Your task to perform on an android device: turn off smart reply in the gmail app Image 0: 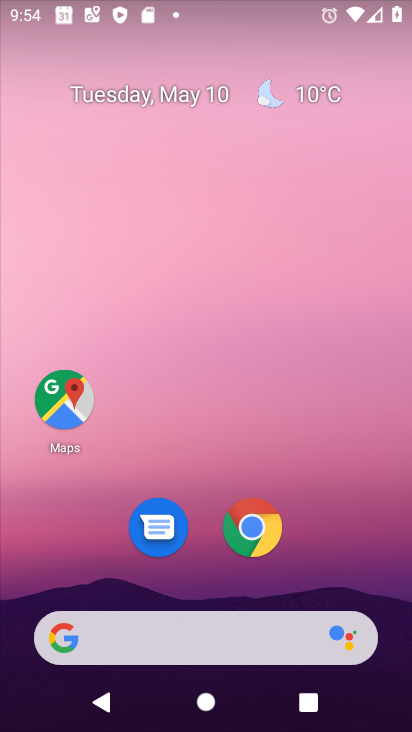
Step 0: drag from (215, 731) to (195, 258)
Your task to perform on an android device: turn off smart reply in the gmail app Image 1: 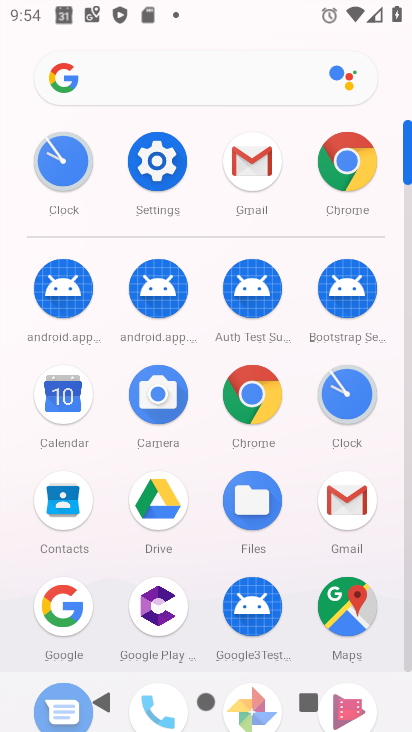
Step 1: click (349, 502)
Your task to perform on an android device: turn off smart reply in the gmail app Image 2: 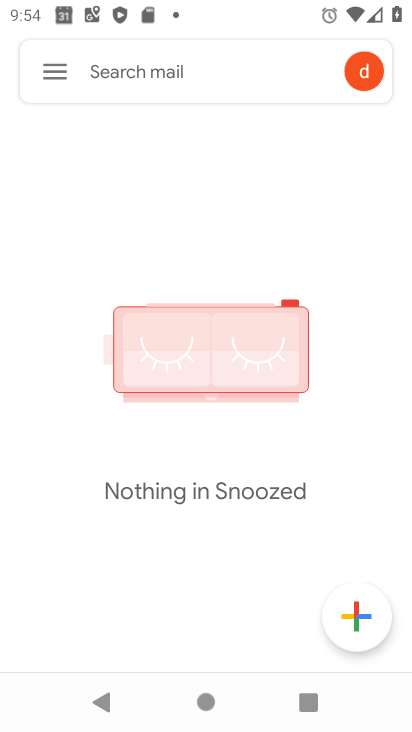
Step 2: click (51, 67)
Your task to perform on an android device: turn off smart reply in the gmail app Image 3: 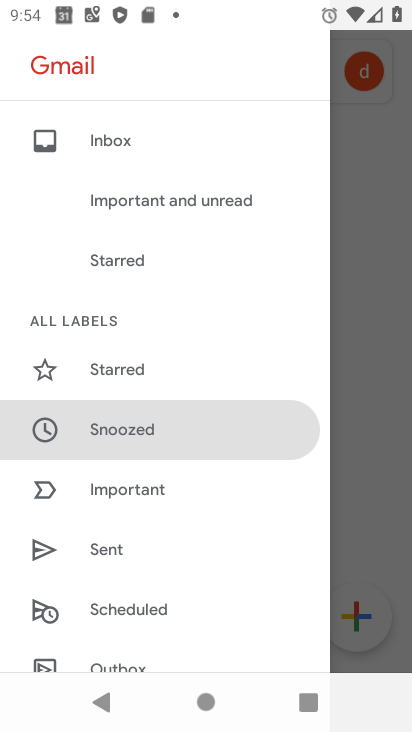
Step 3: drag from (168, 636) to (165, 336)
Your task to perform on an android device: turn off smart reply in the gmail app Image 4: 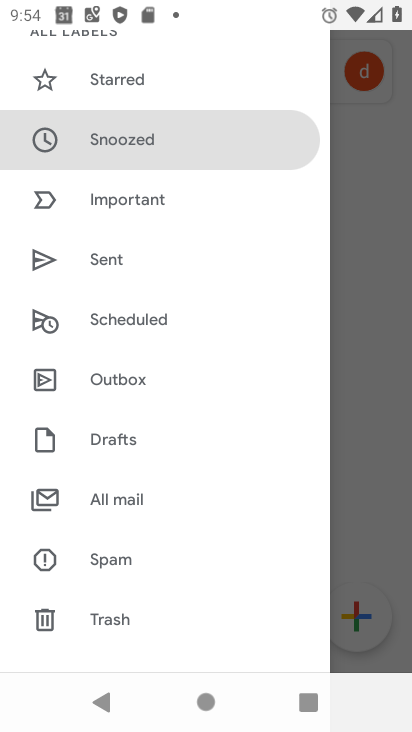
Step 4: drag from (106, 622) to (111, 266)
Your task to perform on an android device: turn off smart reply in the gmail app Image 5: 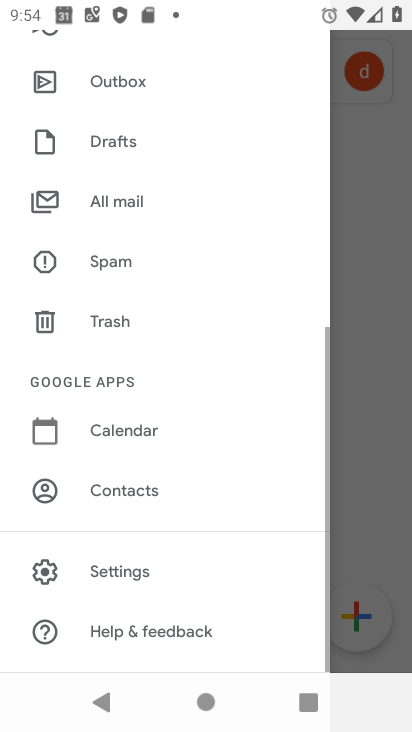
Step 5: click (129, 566)
Your task to perform on an android device: turn off smart reply in the gmail app Image 6: 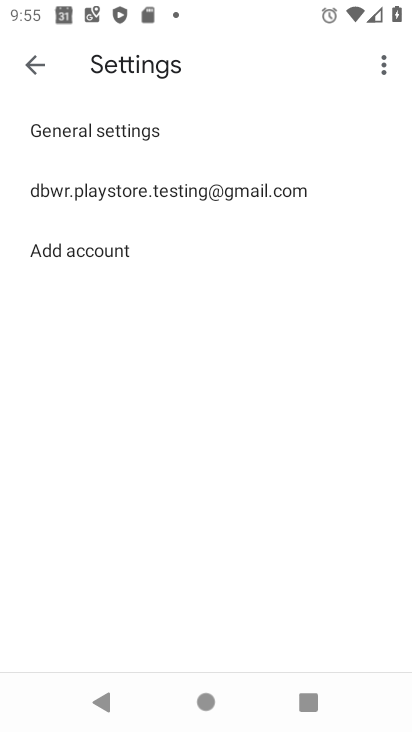
Step 6: click (166, 193)
Your task to perform on an android device: turn off smart reply in the gmail app Image 7: 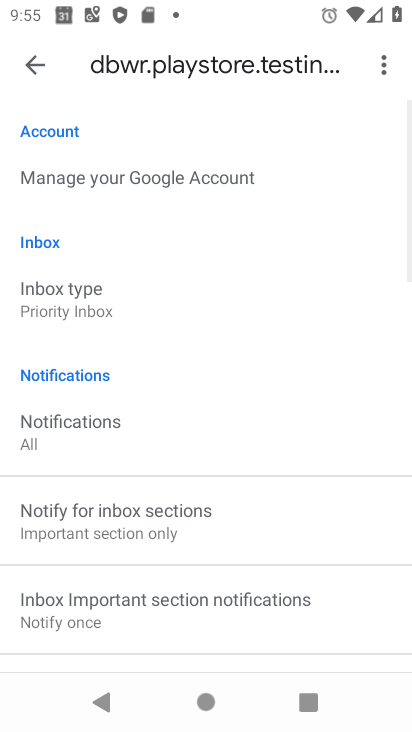
Step 7: drag from (192, 612) to (212, 233)
Your task to perform on an android device: turn off smart reply in the gmail app Image 8: 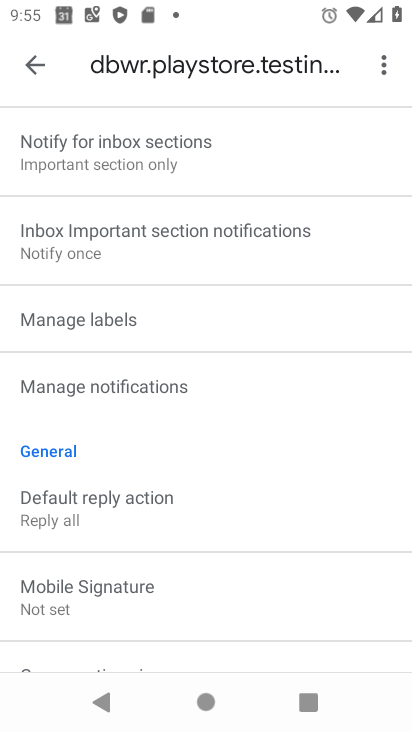
Step 8: drag from (220, 628) to (216, 168)
Your task to perform on an android device: turn off smart reply in the gmail app Image 9: 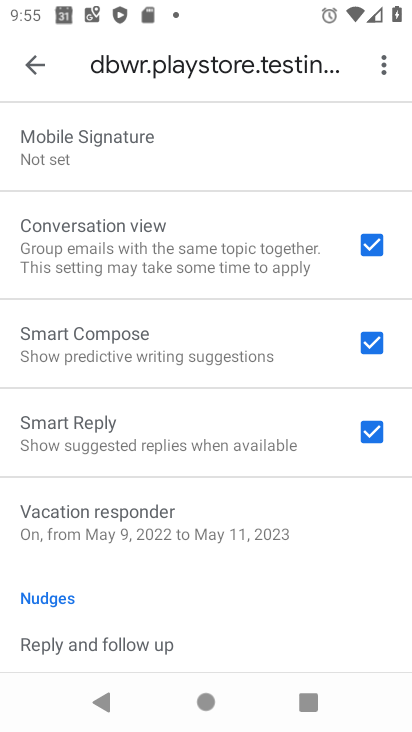
Step 9: click (368, 428)
Your task to perform on an android device: turn off smart reply in the gmail app Image 10: 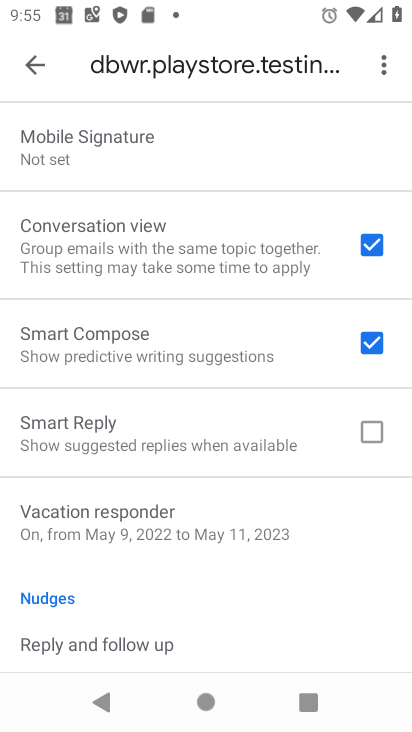
Step 10: task complete